Your task to perform on an android device: set the stopwatch Image 0: 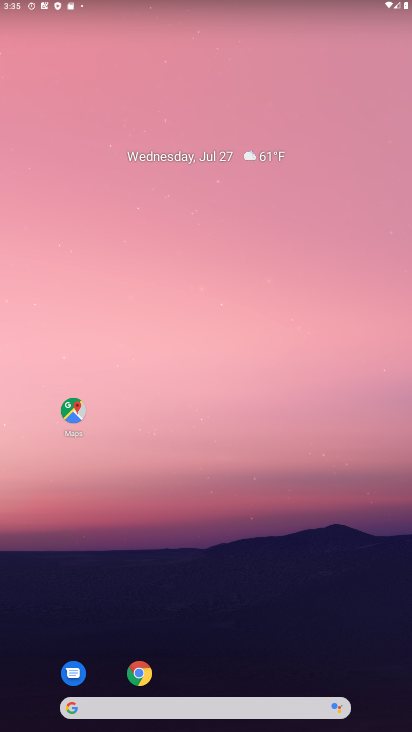
Step 0: drag from (27, 679) to (202, 298)
Your task to perform on an android device: set the stopwatch Image 1: 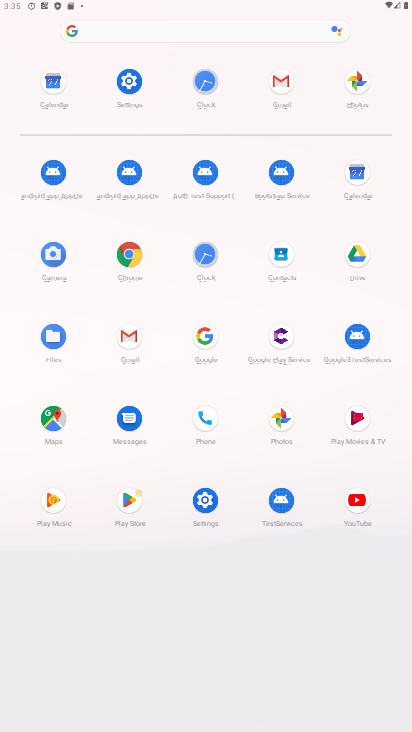
Step 1: click (209, 252)
Your task to perform on an android device: set the stopwatch Image 2: 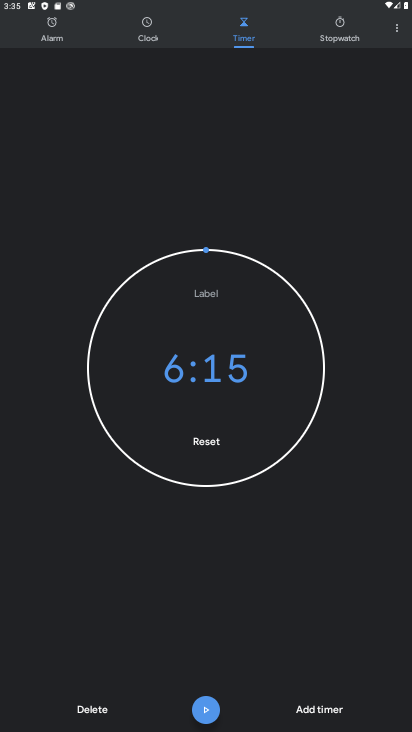
Step 2: click (343, 30)
Your task to perform on an android device: set the stopwatch Image 3: 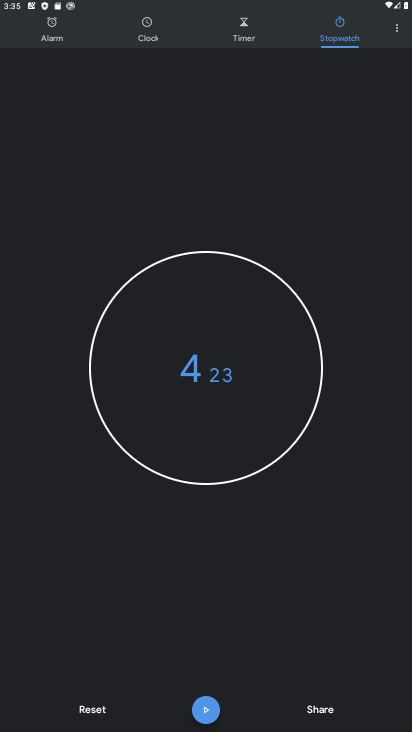
Step 3: click (223, 351)
Your task to perform on an android device: set the stopwatch Image 4: 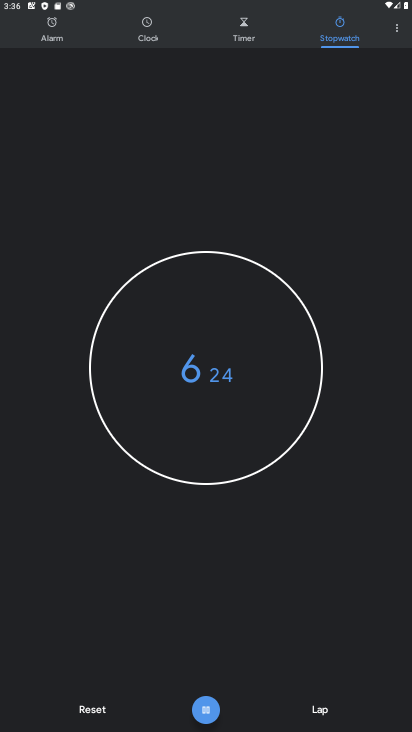
Step 4: click (220, 364)
Your task to perform on an android device: set the stopwatch Image 5: 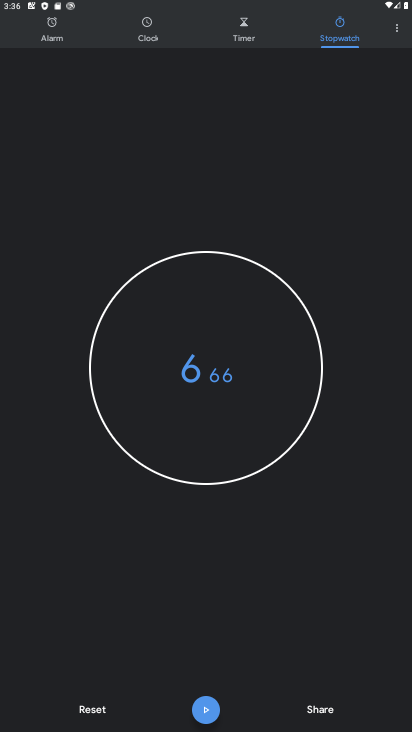
Step 5: task complete